Your task to perform on an android device: find snoozed emails in the gmail app Image 0: 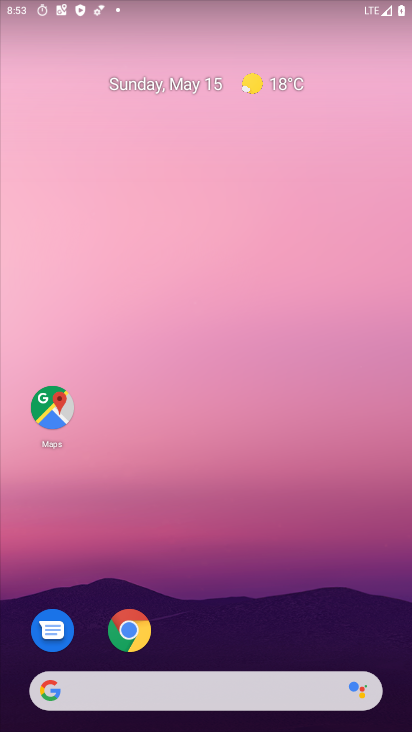
Step 0: drag from (240, 611) to (265, 48)
Your task to perform on an android device: find snoozed emails in the gmail app Image 1: 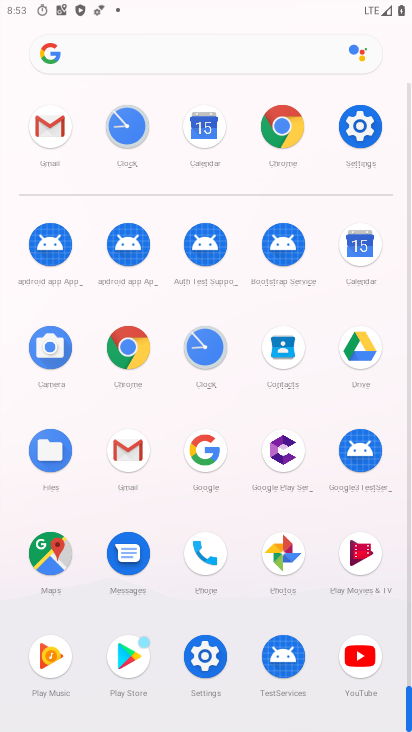
Step 1: click (122, 449)
Your task to perform on an android device: find snoozed emails in the gmail app Image 2: 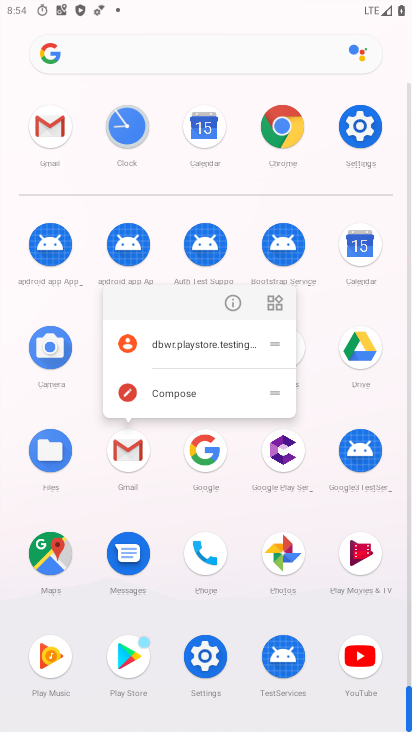
Step 2: click (202, 345)
Your task to perform on an android device: find snoozed emails in the gmail app Image 3: 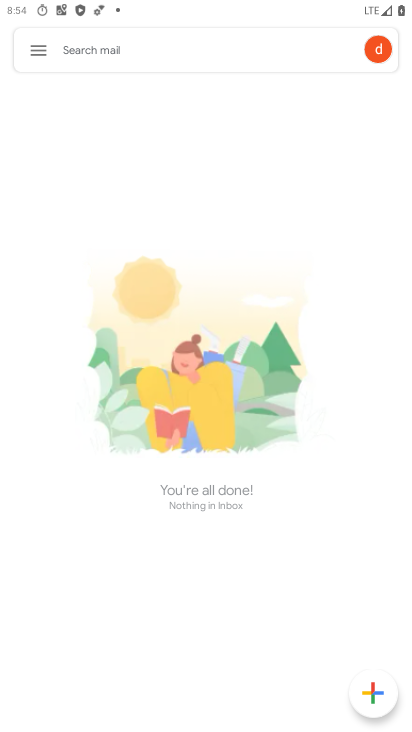
Step 3: click (31, 46)
Your task to perform on an android device: find snoozed emails in the gmail app Image 4: 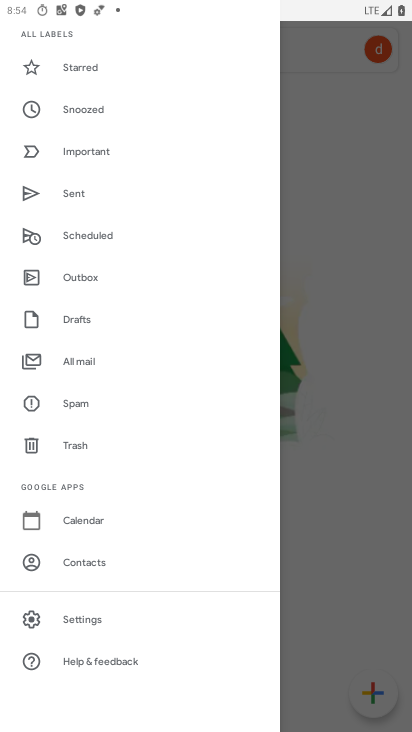
Step 4: click (100, 111)
Your task to perform on an android device: find snoozed emails in the gmail app Image 5: 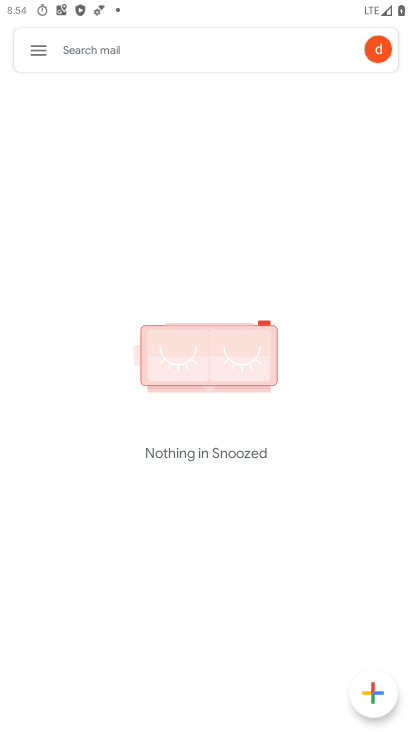
Step 5: task complete